Your task to perform on an android device: Open the Play Movies app and select the watchlist tab. Image 0: 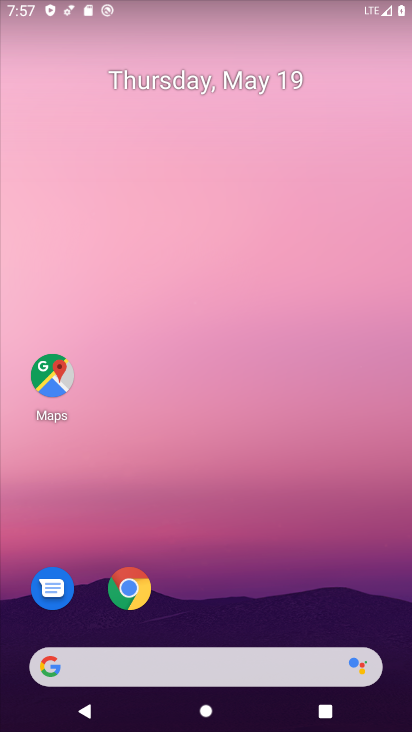
Step 0: drag from (237, 580) to (224, 270)
Your task to perform on an android device: Open the Play Movies app and select the watchlist tab. Image 1: 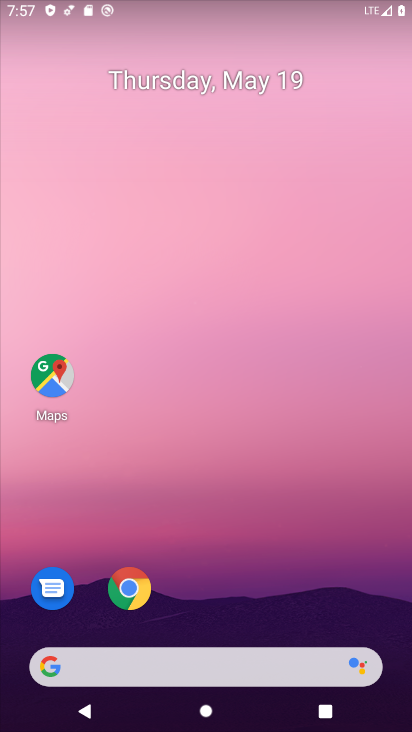
Step 1: drag from (342, 592) to (303, 195)
Your task to perform on an android device: Open the Play Movies app and select the watchlist tab. Image 2: 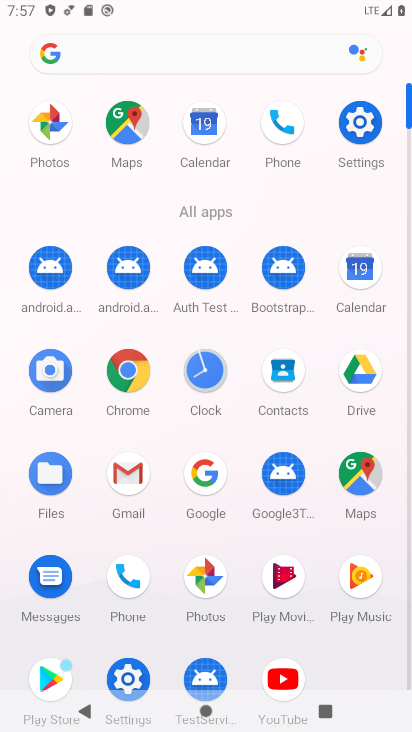
Step 2: click (278, 578)
Your task to perform on an android device: Open the Play Movies app and select the watchlist tab. Image 3: 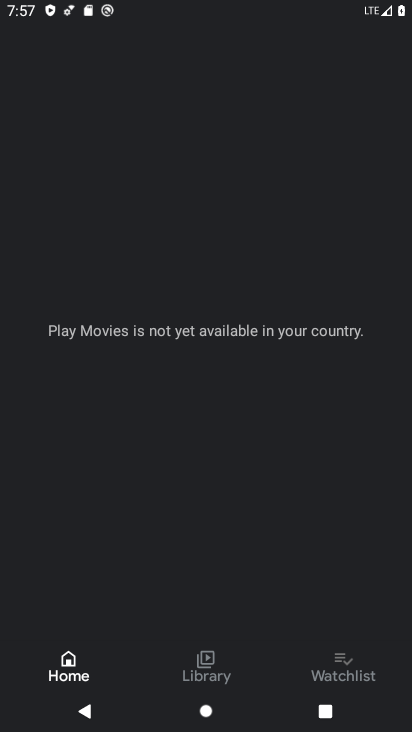
Step 3: click (335, 671)
Your task to perform on an android device: Open the Play Movies app and select the watchlist tab. Image 4: 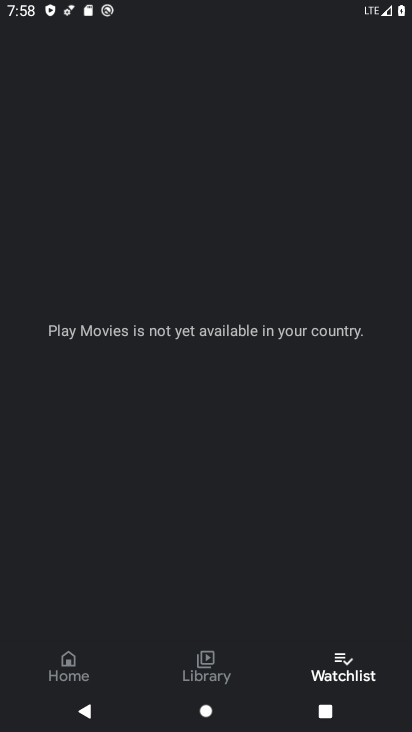
Step 4: task complete